Your task to perform on an android device: turn on improve location accuracy Image 0: 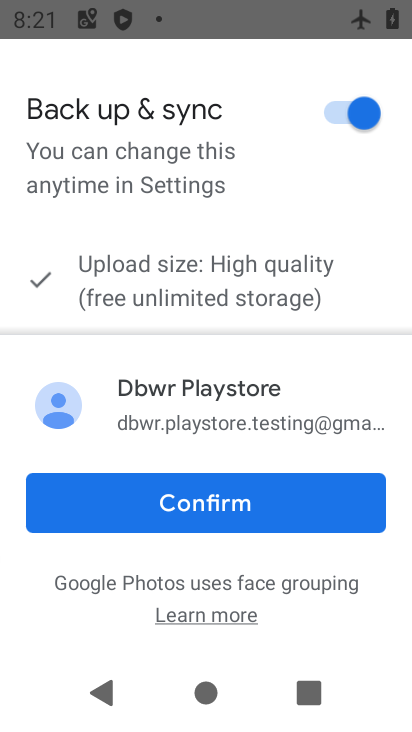
Step 0: press home button
Your task to perform on an android device: turn on improve location accuracy Image 1: 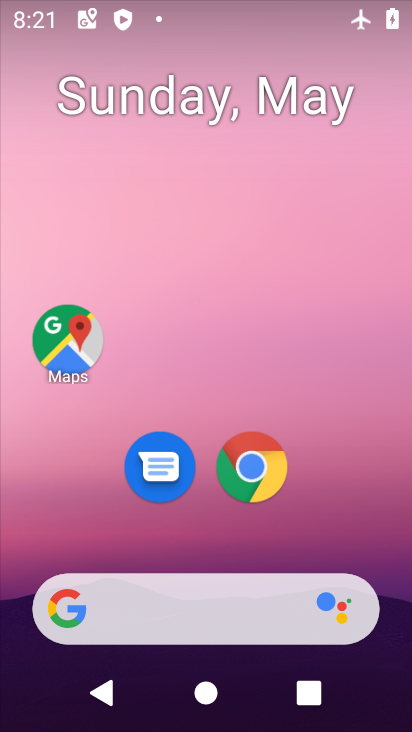
Step 1: drag from (197, 556) to (214, 58)
Your task to perform on an android device: turn on improve location accuracy Image 2: 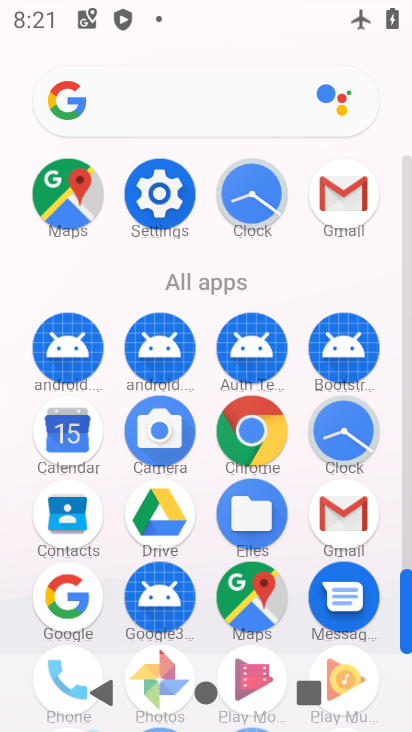
Step 2: click (163, 155)
Your task to perform on an android device: turn on improve location accuracy Image 3: 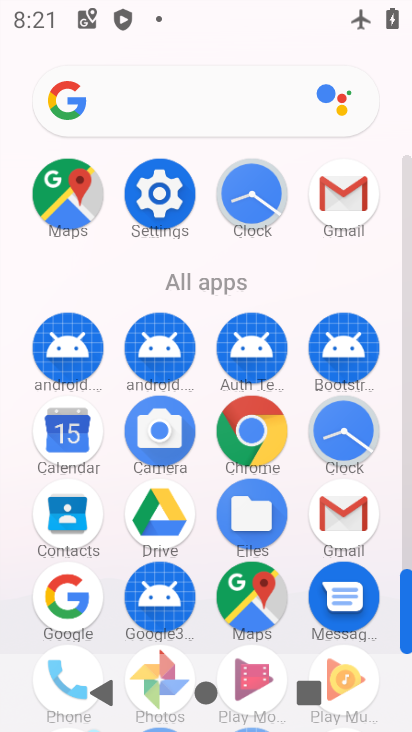
Step 3: click (161, 176)
Your task to perform on an android device: turn on improve location accuracy Image 4: 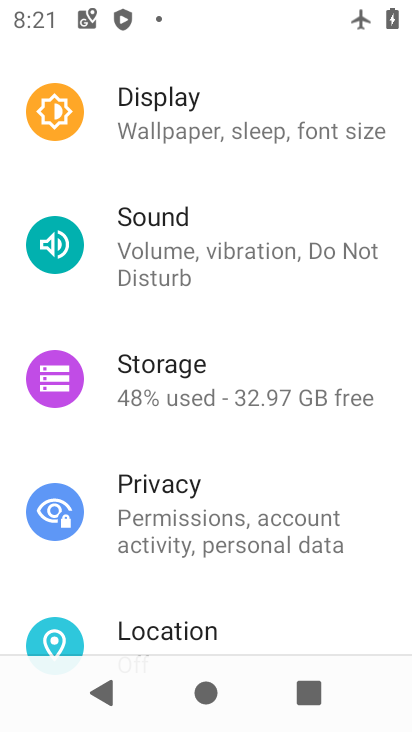
Step 4: click (199, 625)
Your task to perform on an android device: turn on improve location accuracy Image 5: 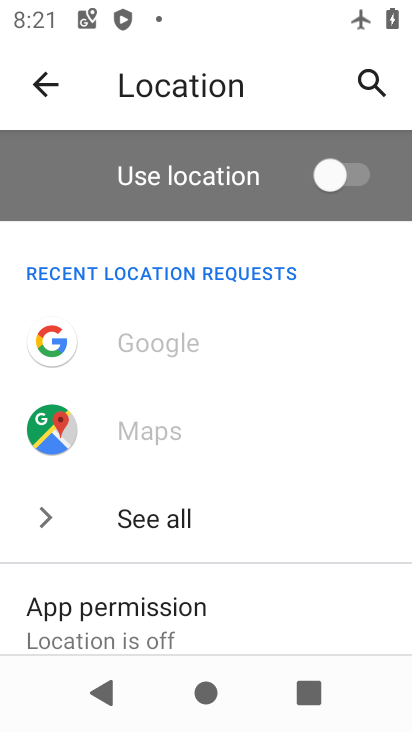
Step 5: drag from (199, 625) to (235, 171)
Your task to perform on an android device: turn on improve location accuracy Image 6: 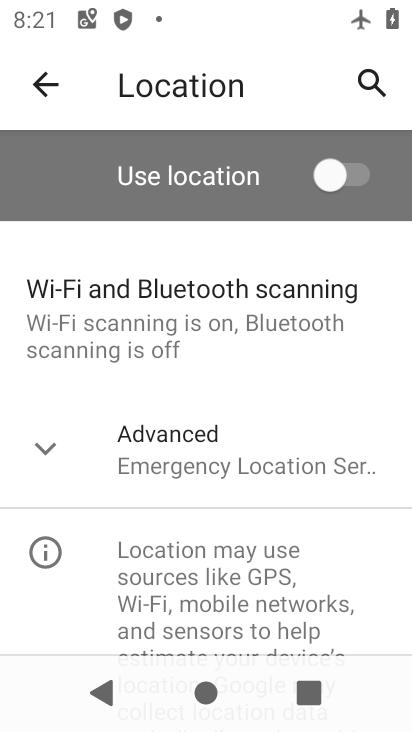
Step 6: click (205, 441)
Your task to perform on an android device: turn on improve location accuracy Image 7: 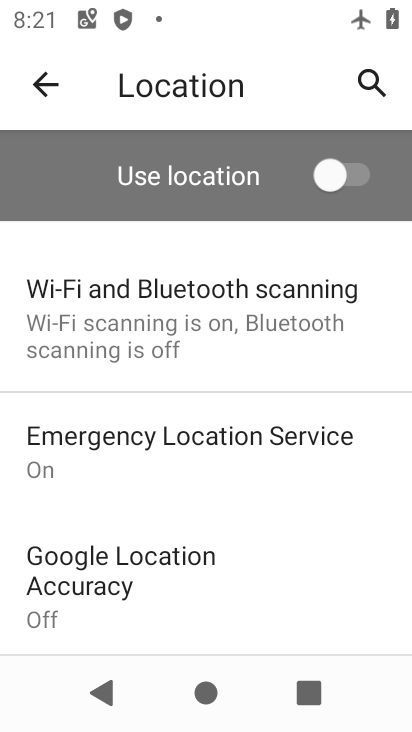
Step 7: click (173, 613)
Your task to perform on an android device: turn on improve location accuracy Image 8: 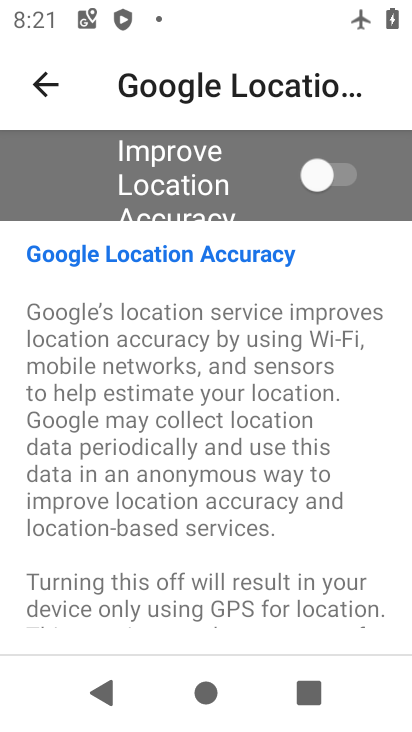
Step 8: click (351, 181)
Your task to perform on an android device: turn on improve location accuracy Image 9: 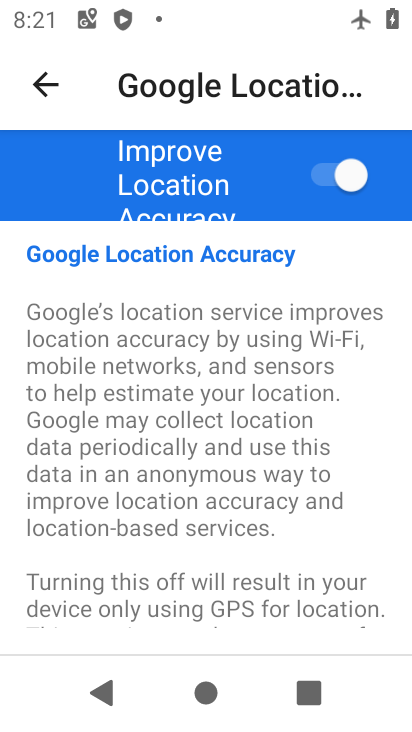
Step 9: task complete